Your task to perform on an android device: see tabs open on other devices in the chrome app Image 0: 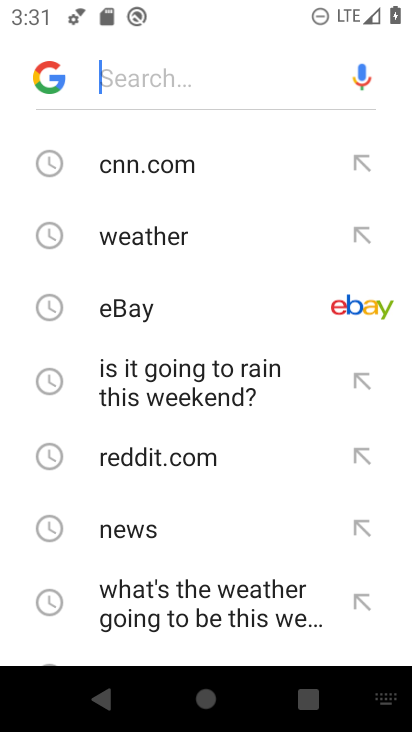
Step 0: press home button
Your task to perform on an android device: see tabs open on other devices in the chrome app Image 1: 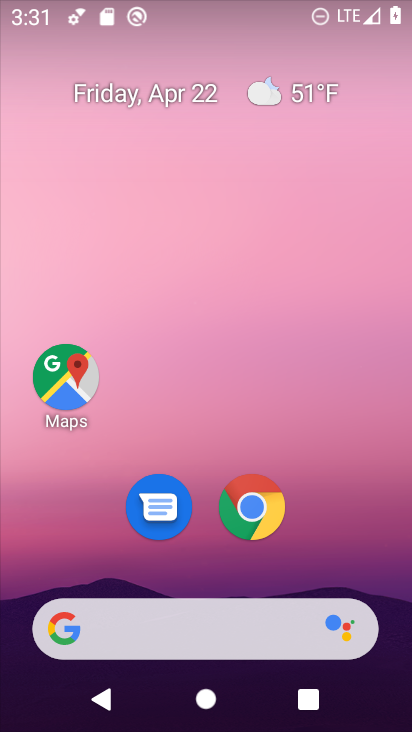
Step 1: drag from (220, 563) to (388, 219)
Your task to perform on an android device: see tabs open on other devices in the chrome app Image 2: 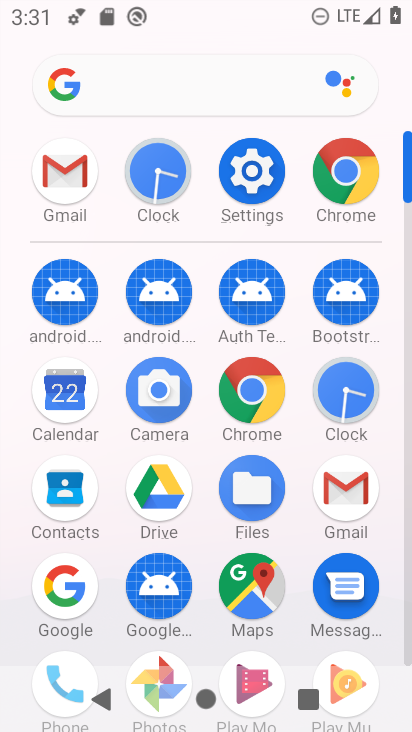
Step 2: click (251, 406)
Your task to perform on an android device: see tabs open on other devices in the chrome app Image 3: 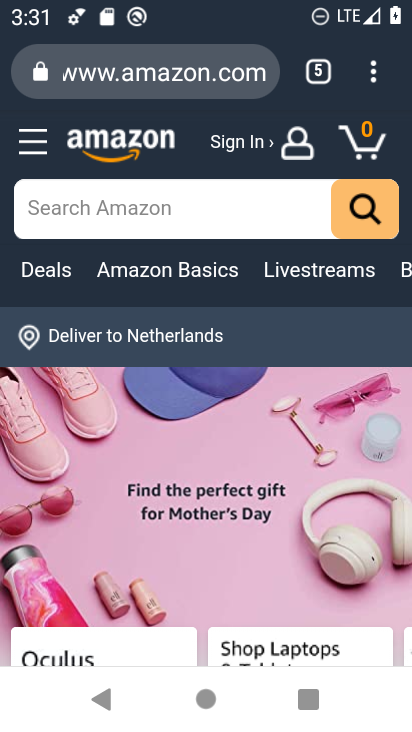
Step 3: click (322, 65)
Your task to perform on an android device: see tabs open on other devices in the chrome app Image 4: 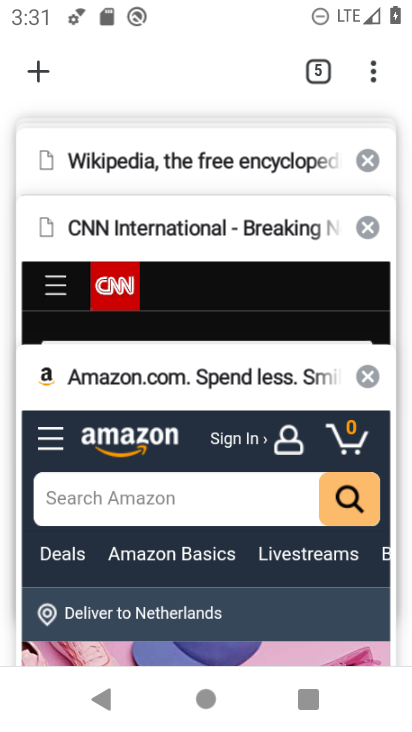
Step 4: task complete